Your task to perform on an android device: Is it going to rain tomorrow? Image 0: 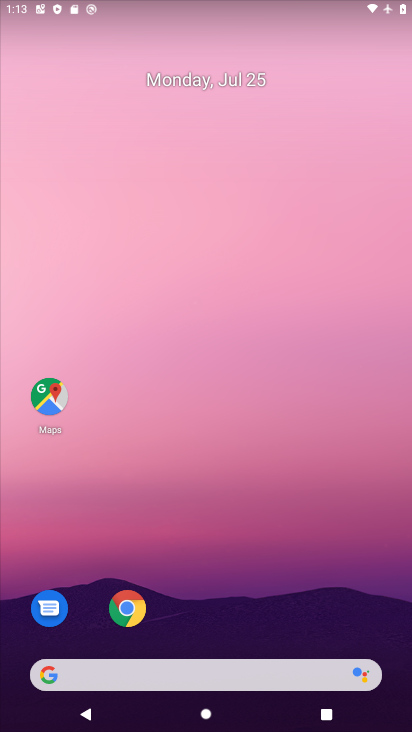
Step 0: drag from (227, 651) to (284, 211)
Your task to perform on an android device: Is it going to rain tomorrow? Image 1: 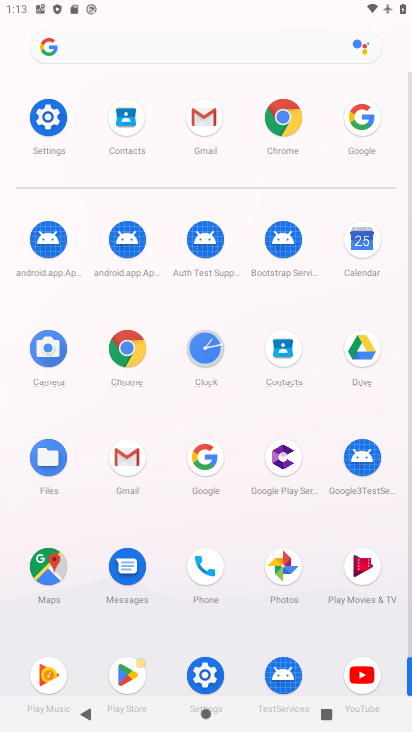
Step 1: click (191, 471)
Your task to perform on an android device: Is it going to rain tomorrow? Image 2: 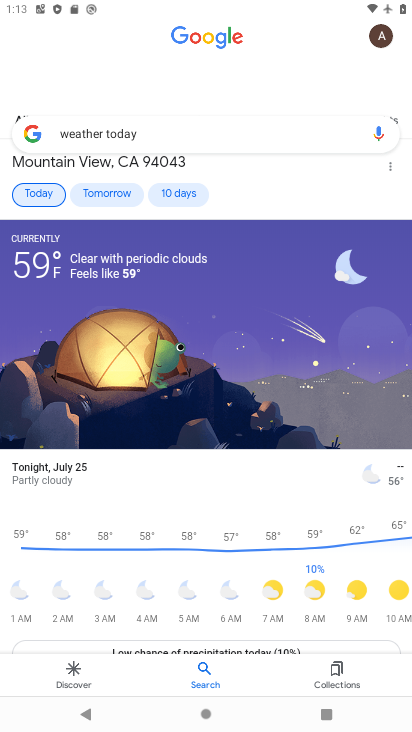
Step 2: click (127, 192)
Your task to perform on an android device: Is it going to rain tomorrow? Image 3: 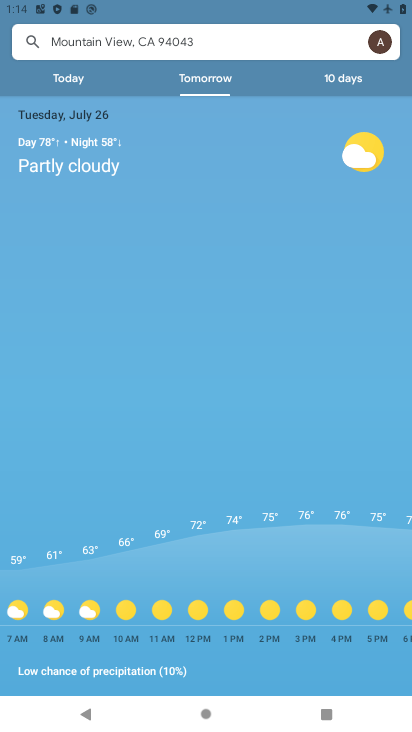
Step 3: task complete